Your task to perform on an android device: open app "Microsoft Outlook" (install if not already installed) and go to login screen Image 0: 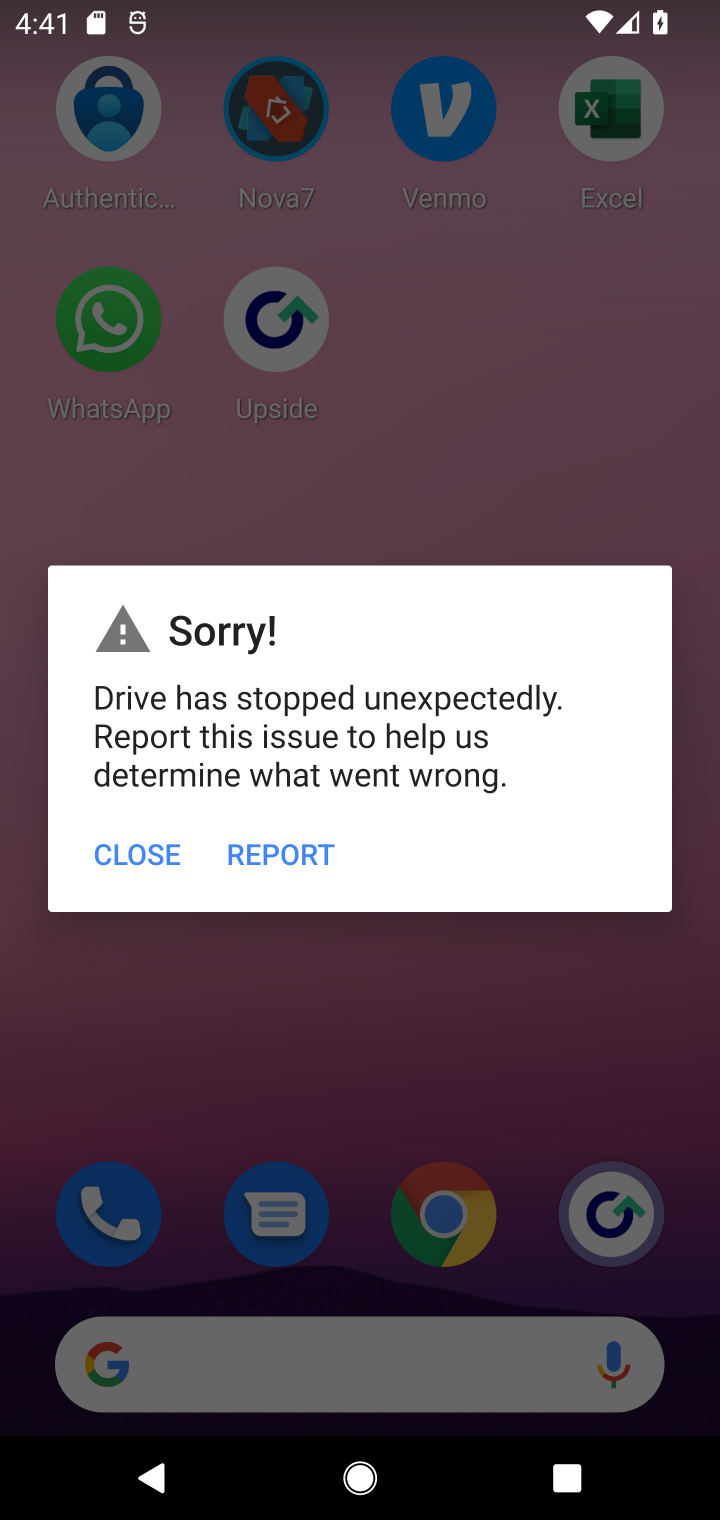
Step 0: press home button
Your task to perform on an android device: open app "Microsoft Outlook" (install if not already installed) and go to login screen Image 1: 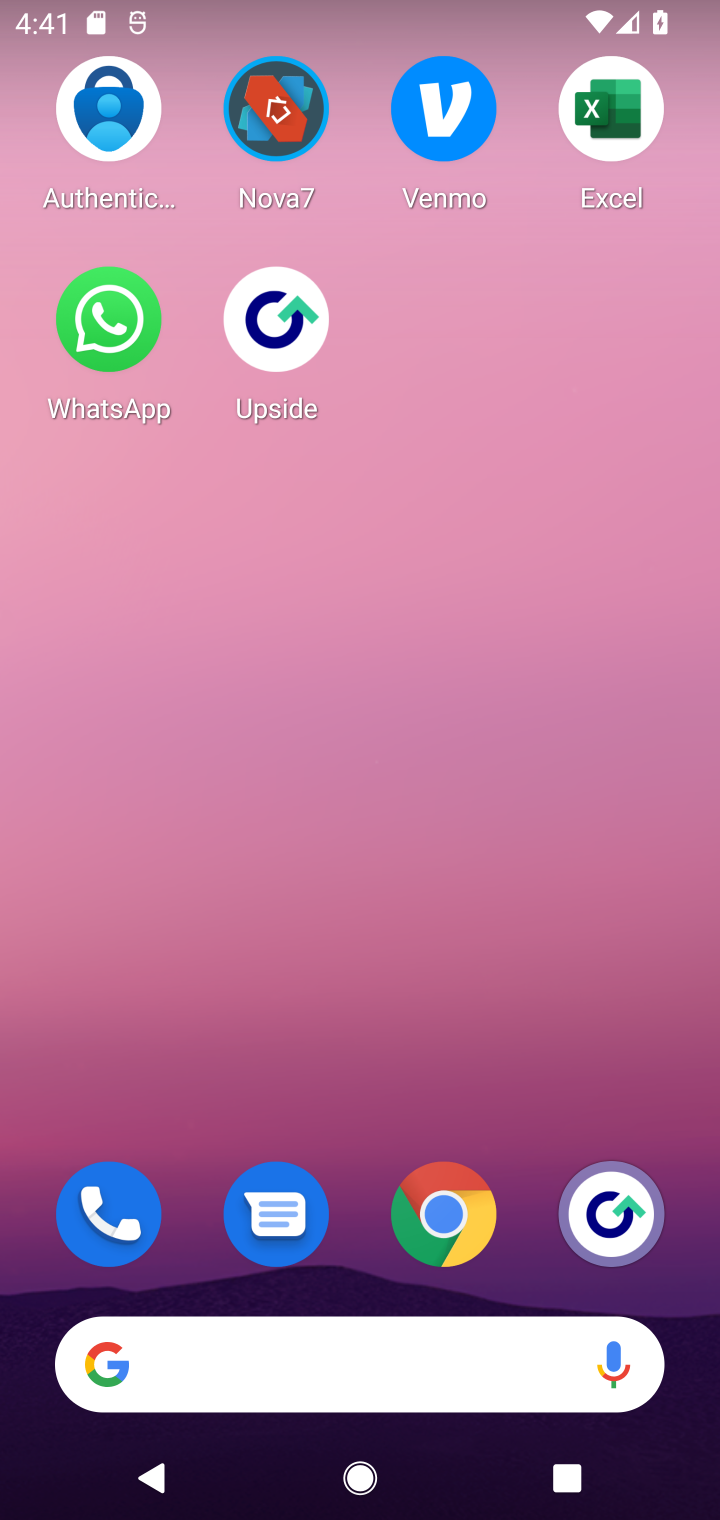
Step 1: drag from (363, 1075) to (481, 24)
Your task to perform on an android device: open app "Microsoft Outlook" (install if not already installed) and go to login screen Image 2: 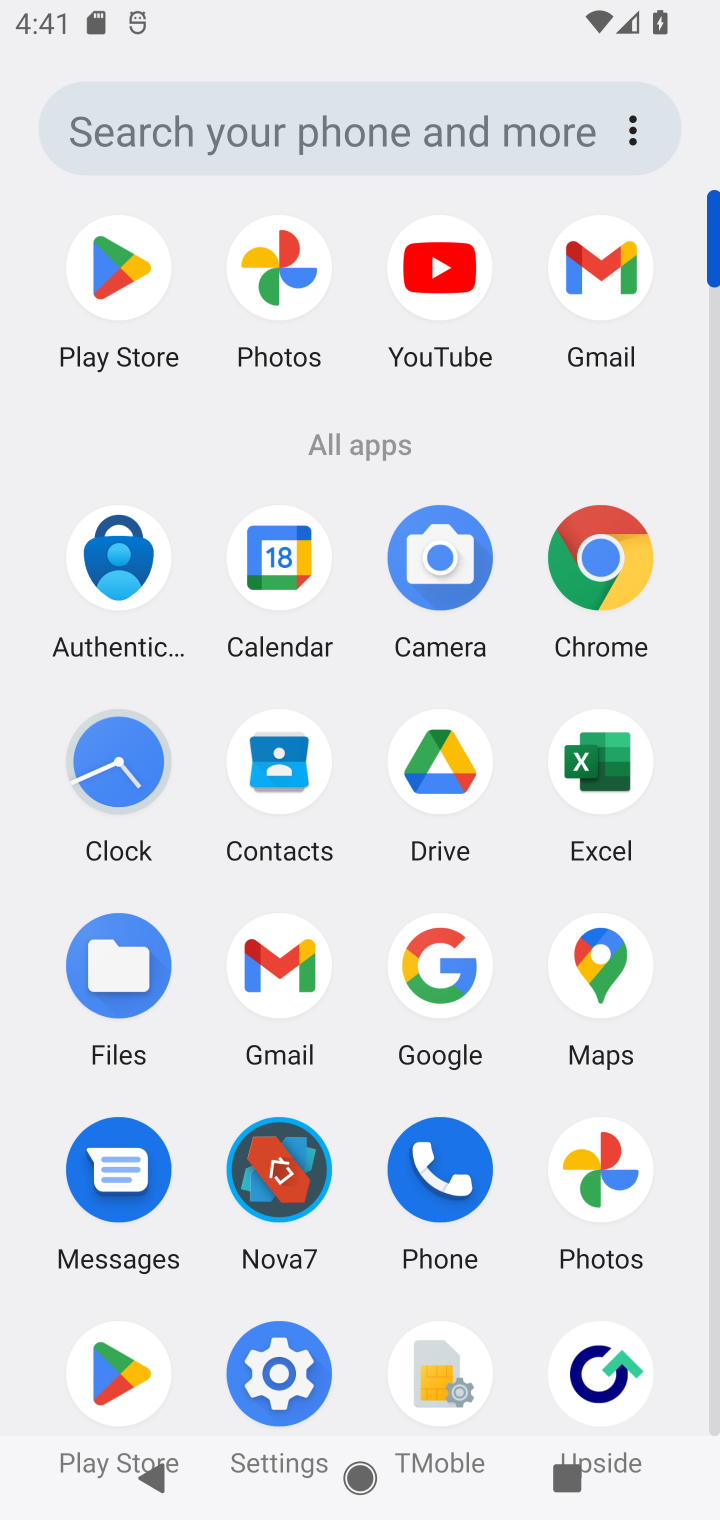
Step 2: click (110, 292)
Your task to perform on an android device: open app "Microsoft Outlook" (install if not already installed) and go to login screen Image 3: 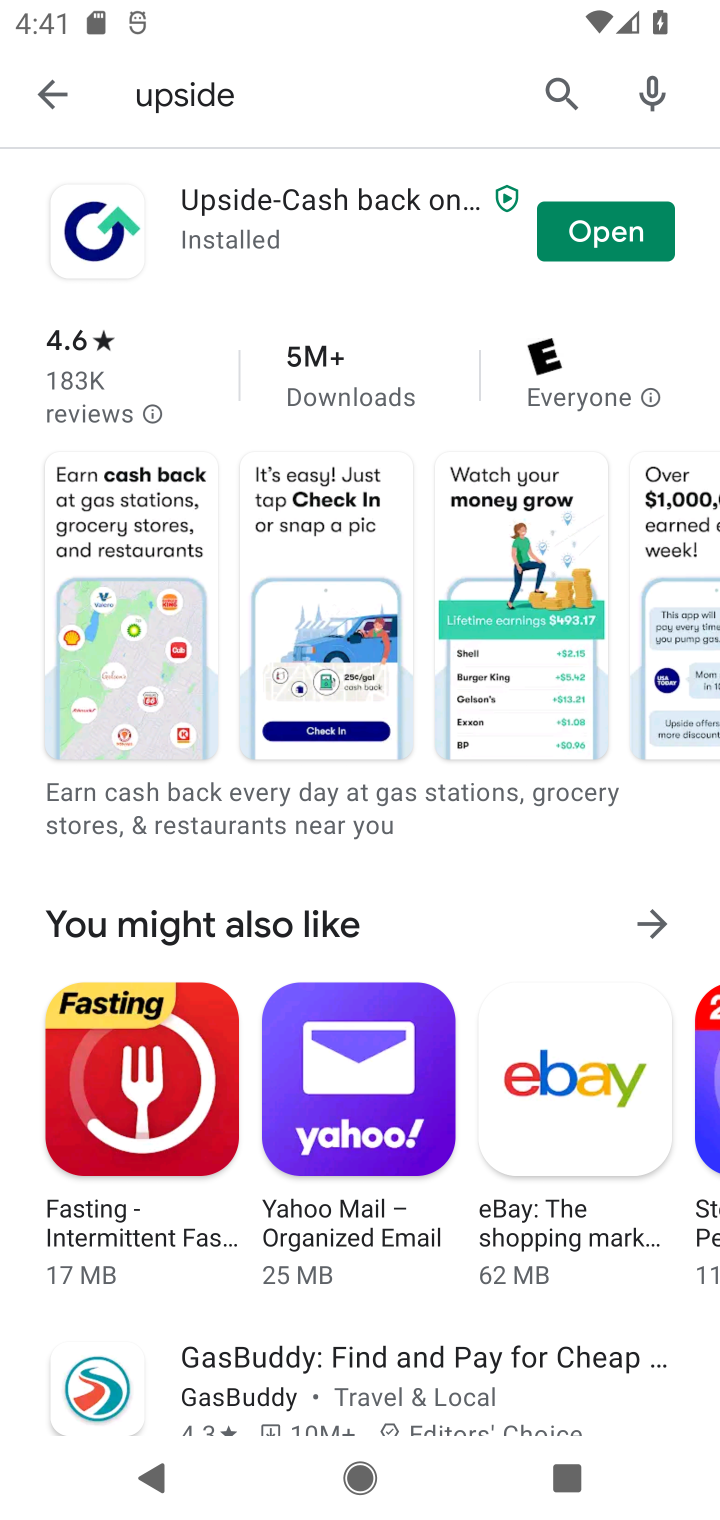
Step 3: click (257, 108)
Your task to perform on an android device: open app "Microsoft Outlook" (install if not already installed) and go to login screen Image 4: 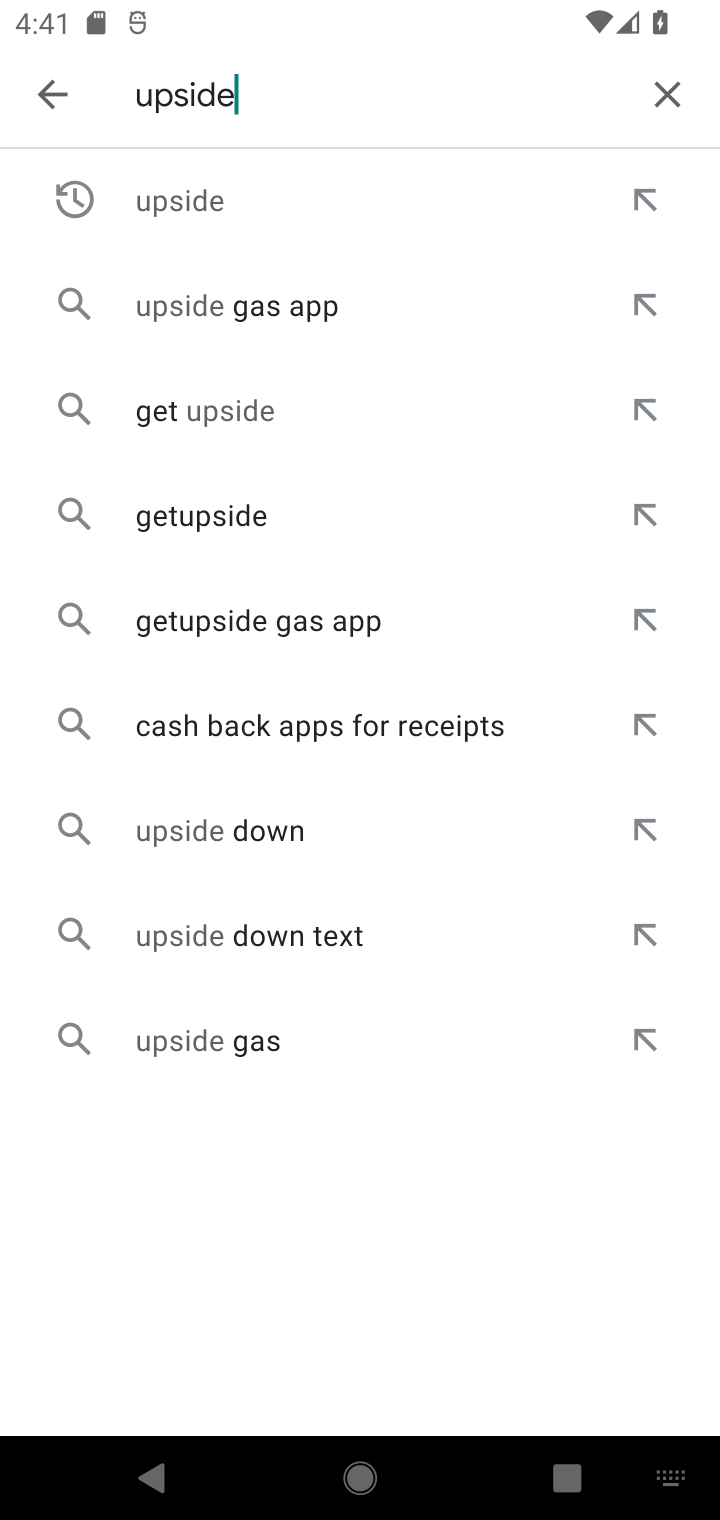
Step 4: click (663, 85)
Your task to perform on an android device: open app "Microsoft Outlook" (install if not already installed) and go to login screen Image 5: 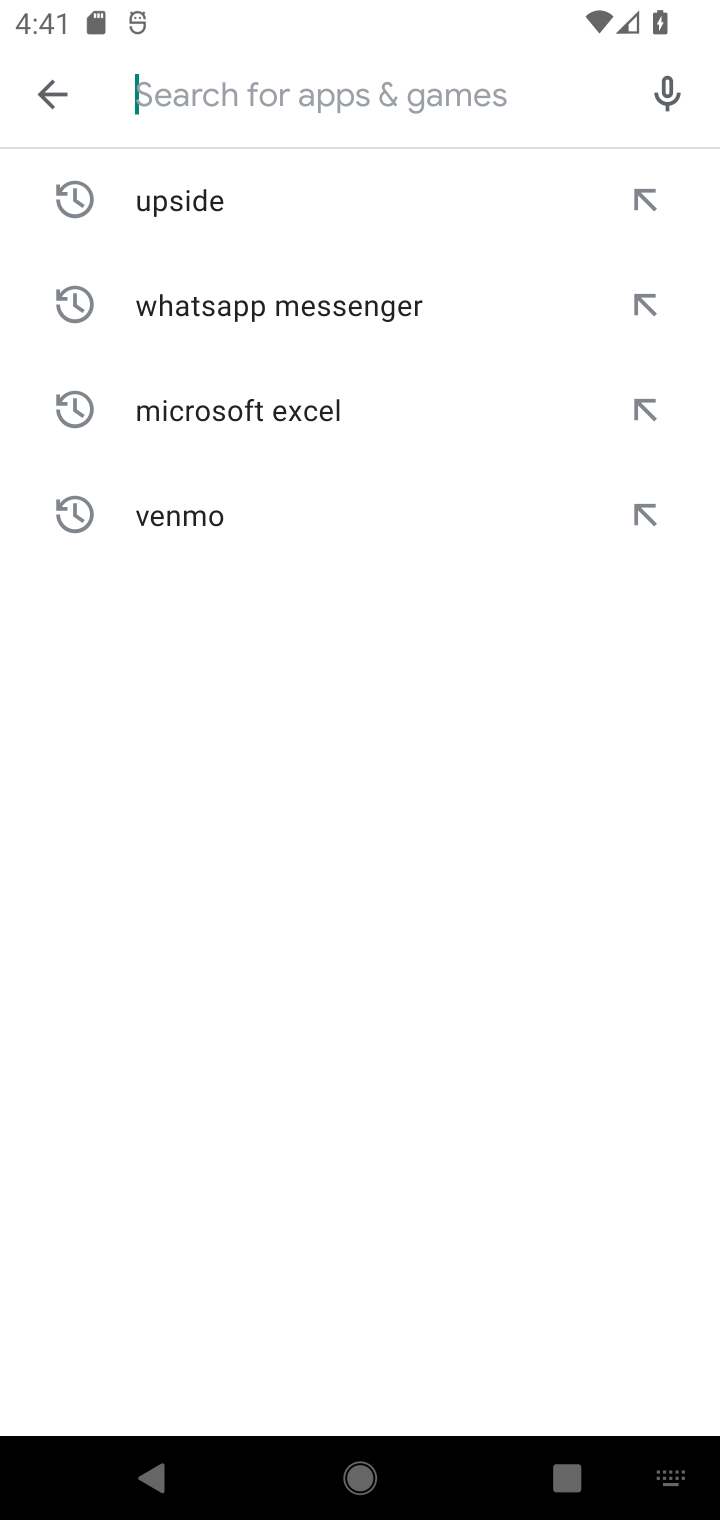
Step 5: type "microsoft outlook"
Your task to perform on an android device: open app "Microsoft Outlook" (install if not already installed) and go to login screen Image 6: 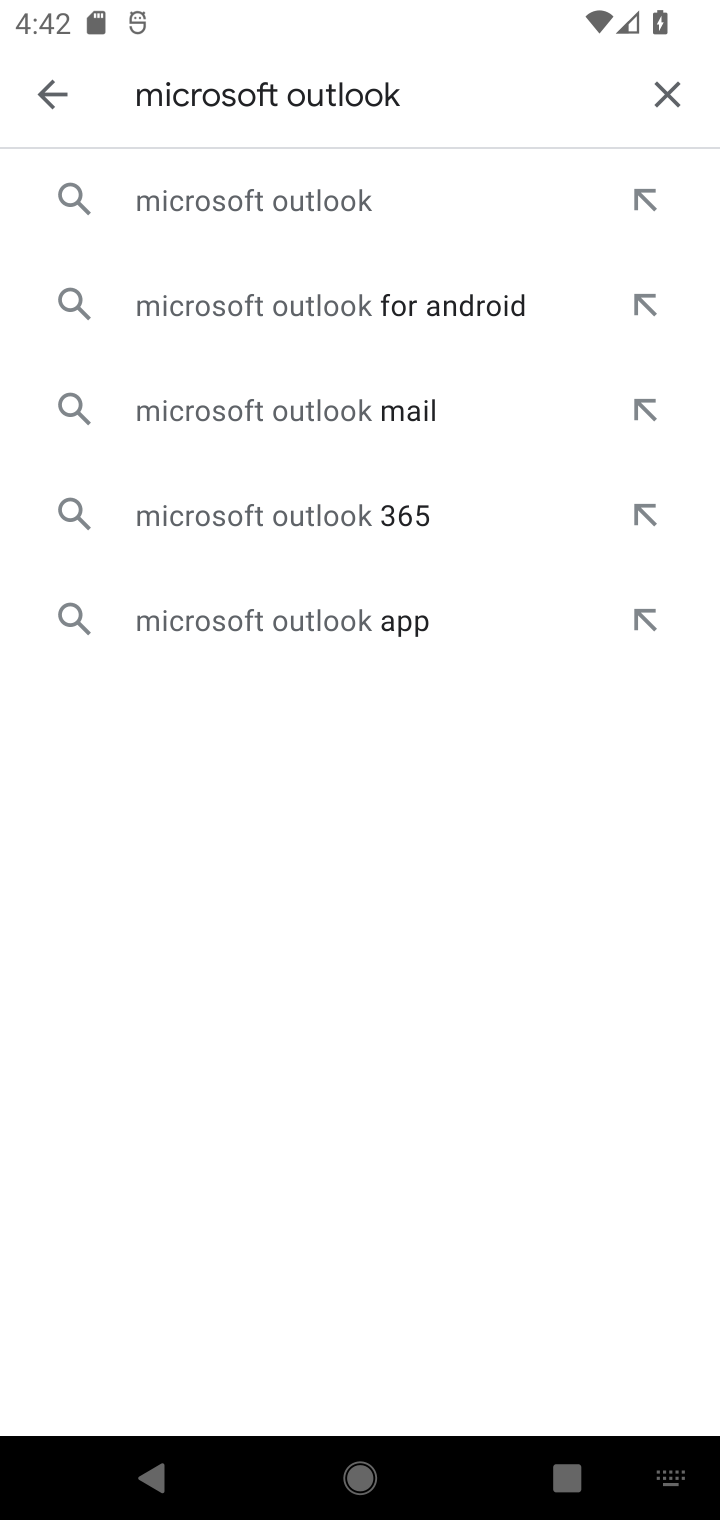
Step 6: click (200, 219)
Your task to perform on an android device: open app "Microsoft Outlook" (install if not already installed) and go to login screen Image 7: 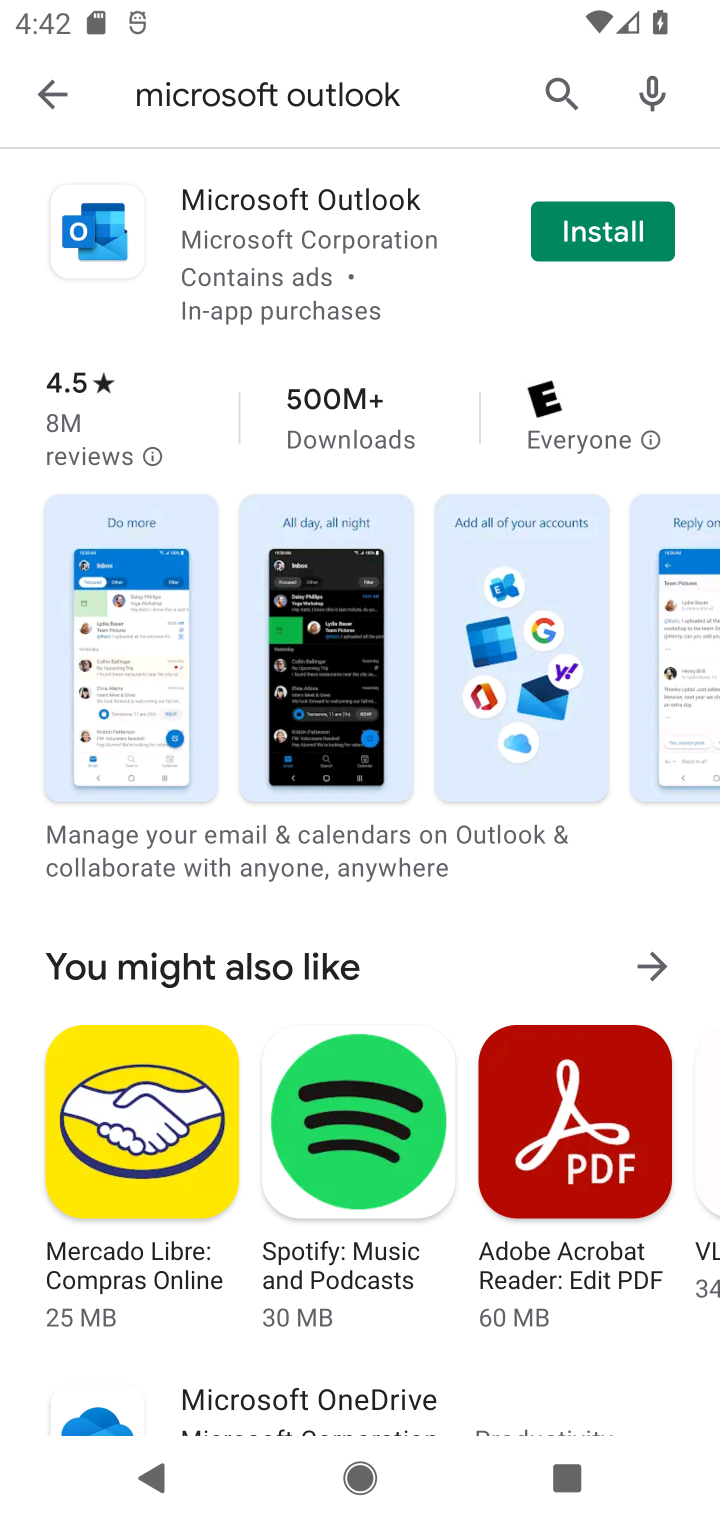
Step 7: click (630, 228)
Your task to perform on an android device: open app "Microsoft Outlook" (install if not already installed) and go to login screen Image 8: 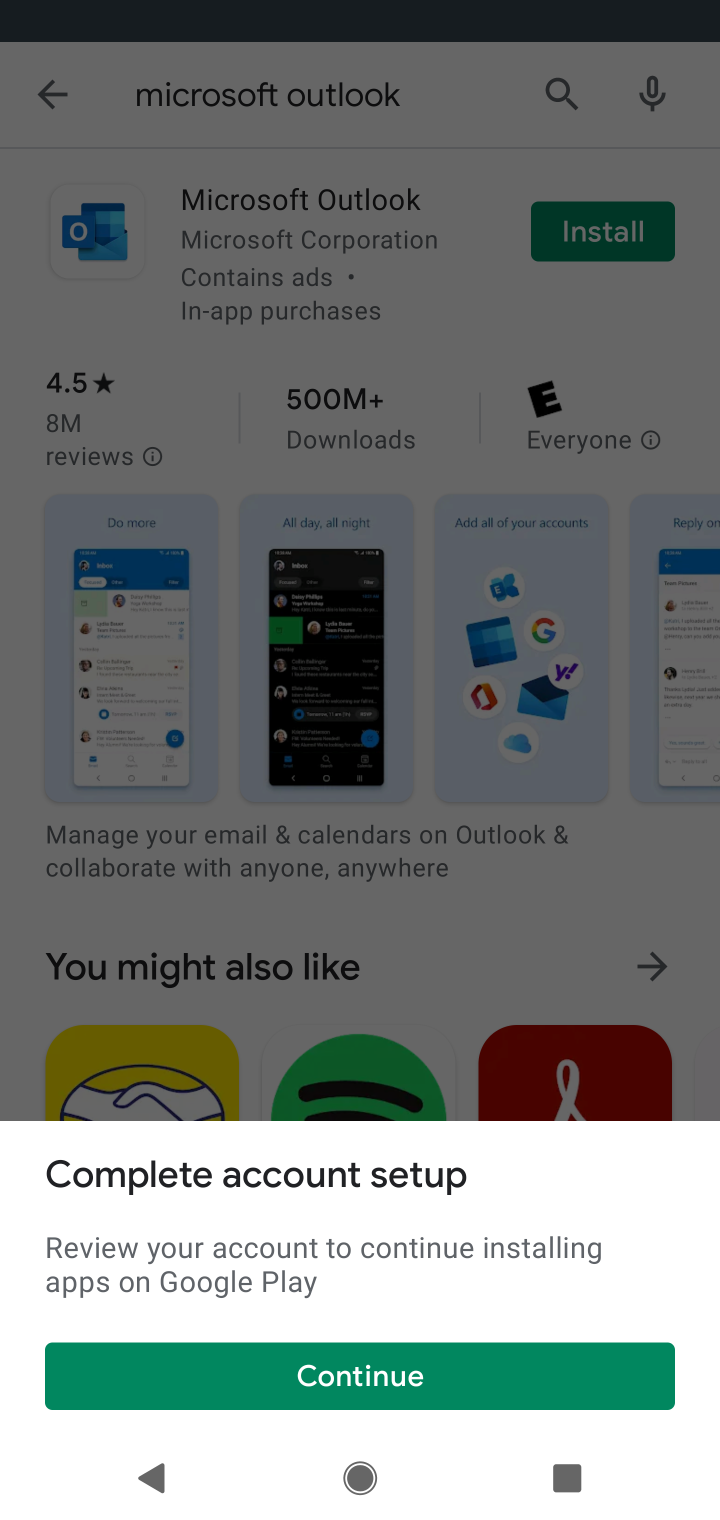
Step 8: click (333, 1367)
Your task to perform on an android device: open app "Microsoft Outlook" (install if not already installed) and go to login screen Image 9: 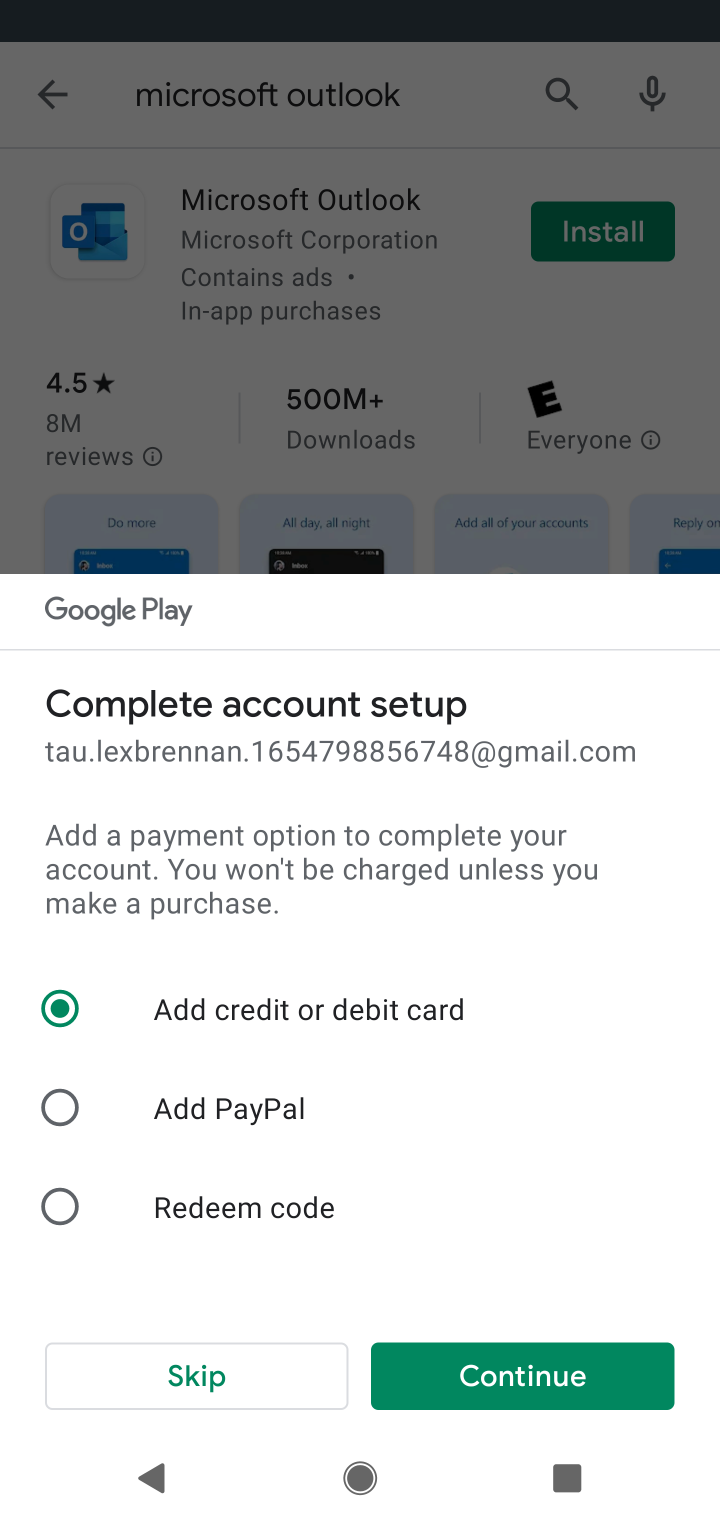
Step 9: click (206, 1367)
Your task to perform on an android device: open app "Microsoft Outlook" (install if not already installed) and go to login screen Image 10: 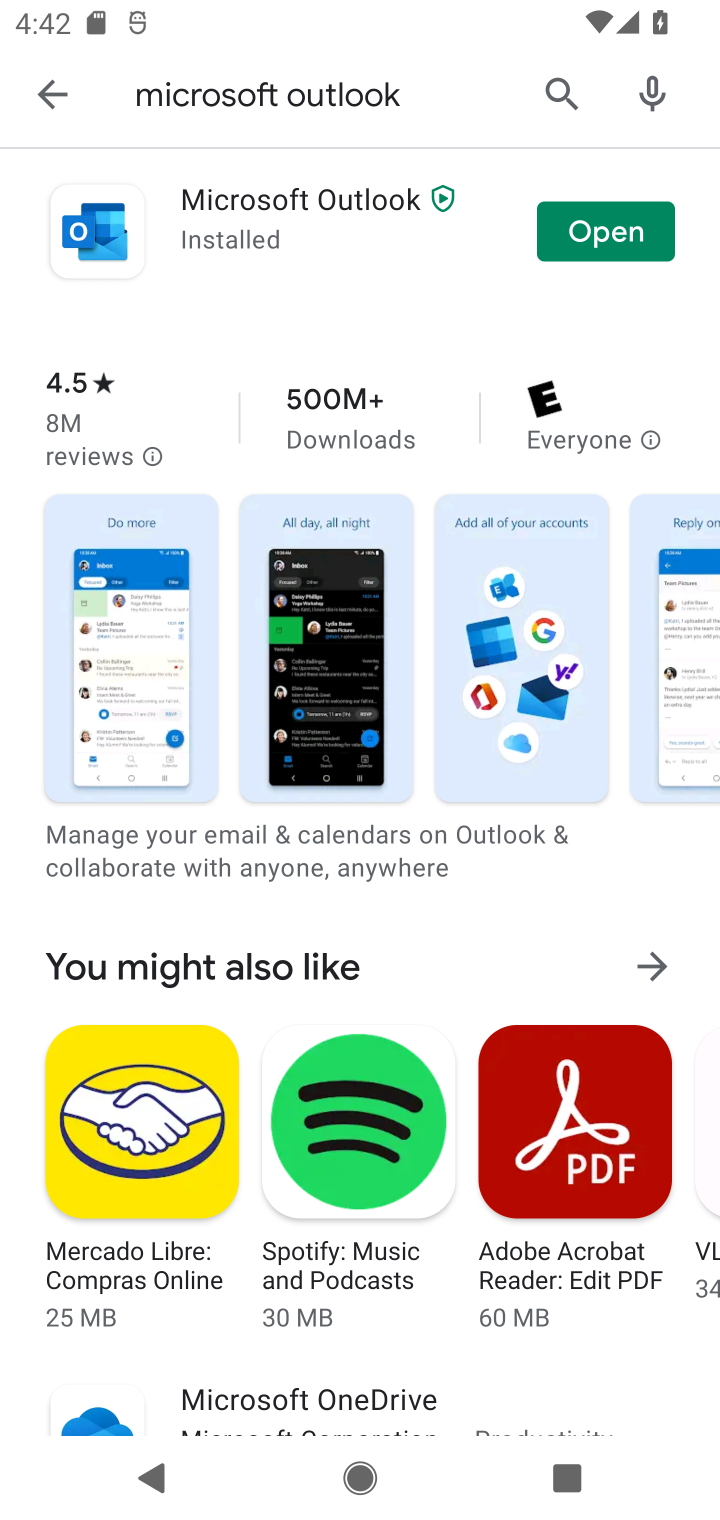
Step 10: click (601, 223)
Your task to perform on an android device: open app "Microsoft Outlook" (install if not already installed) and go to login screen Image 11: 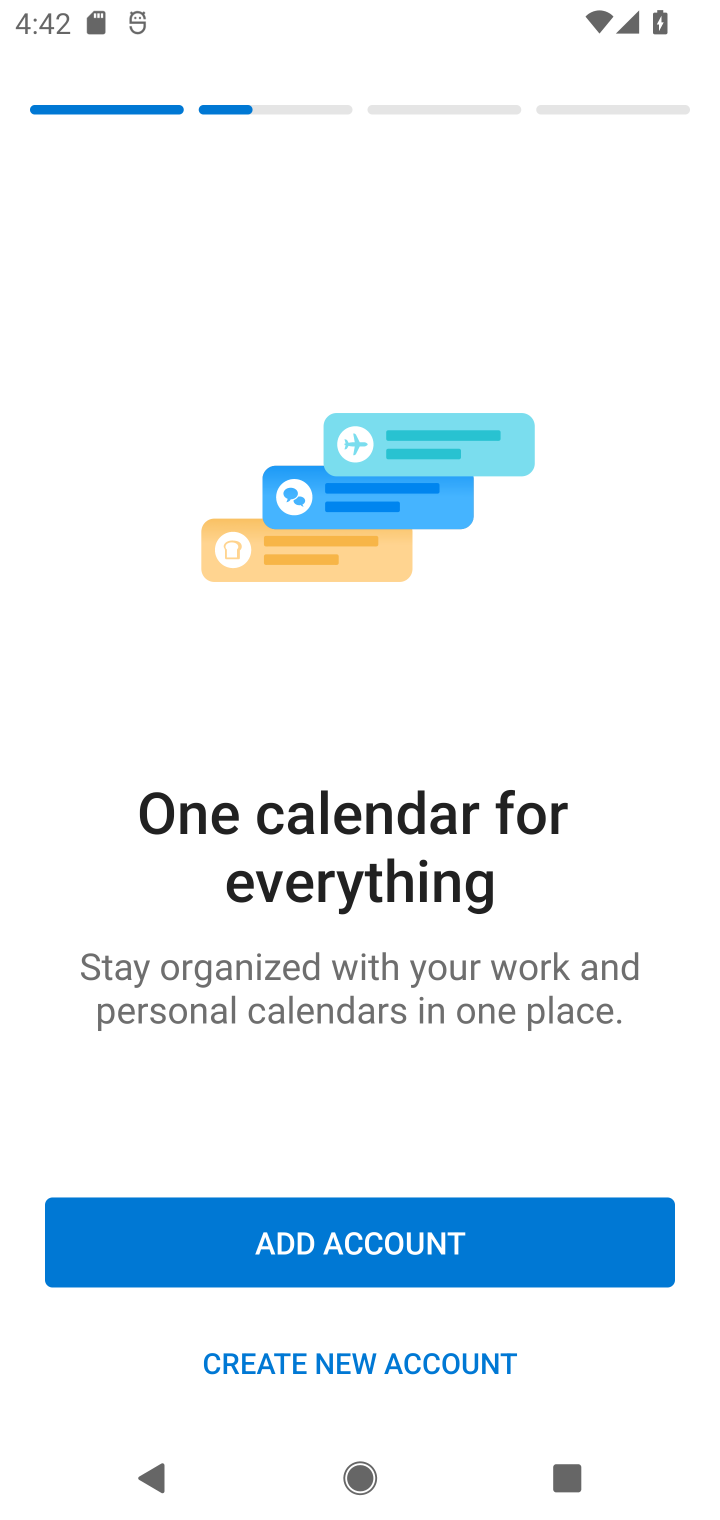
Step 11: click (413, 1362)
Your task to perform on an android device: open app "Microsoft Outlook" (install if not already installed) and go to login screen Image 12: 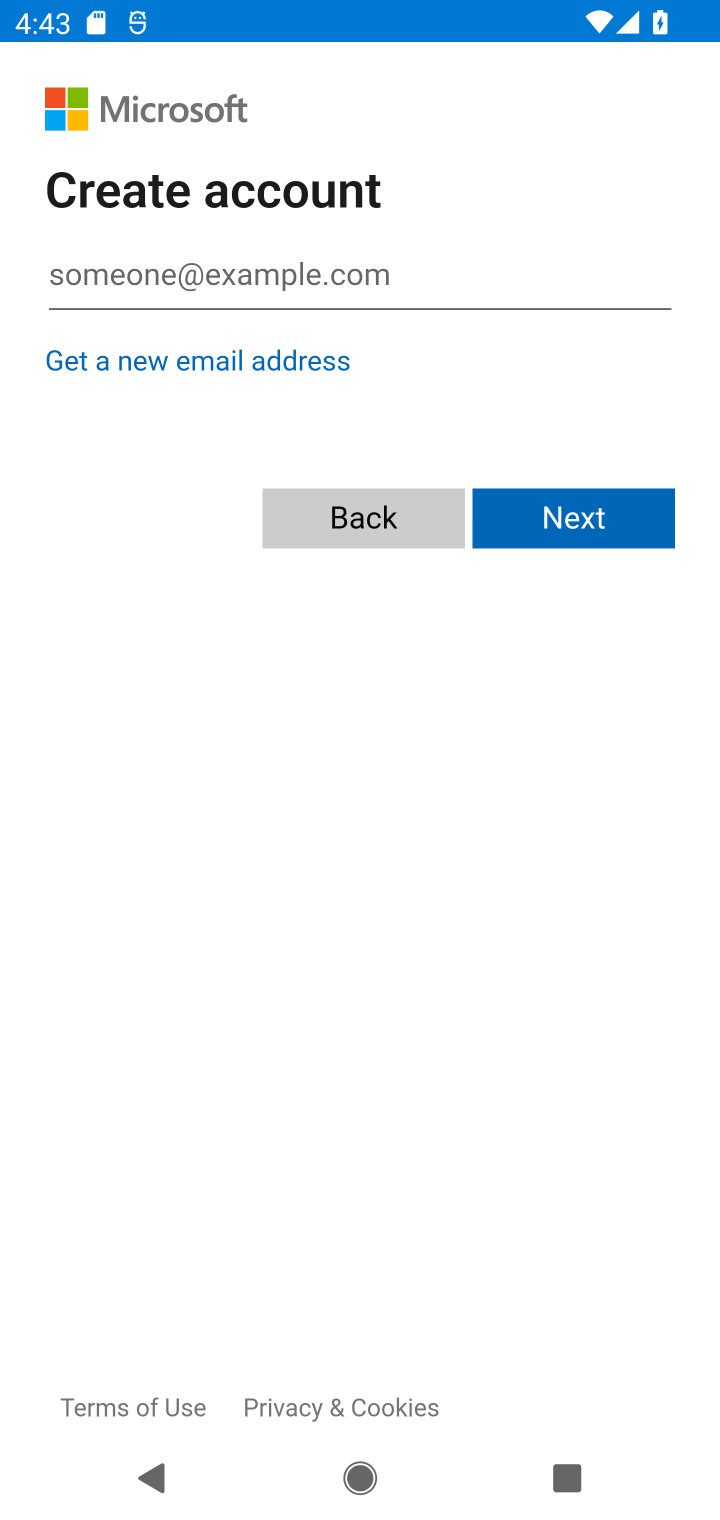
Step 12: task complete